Your task to perform on an android device: change the clock display to digital Image 0: 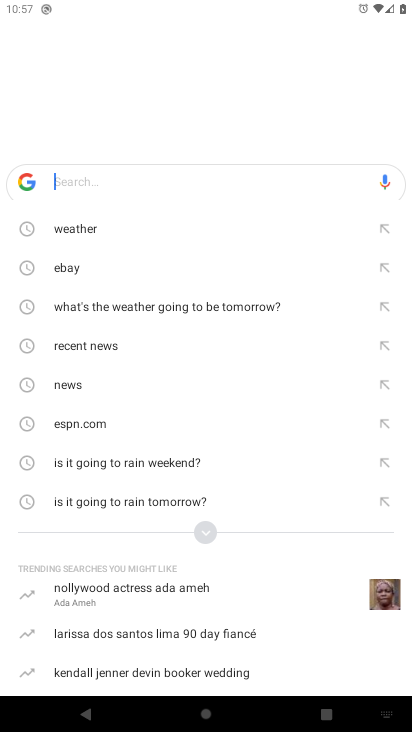
Step 0: press home button
Your task to perform on an android device: change the clock display to digital Image 1: 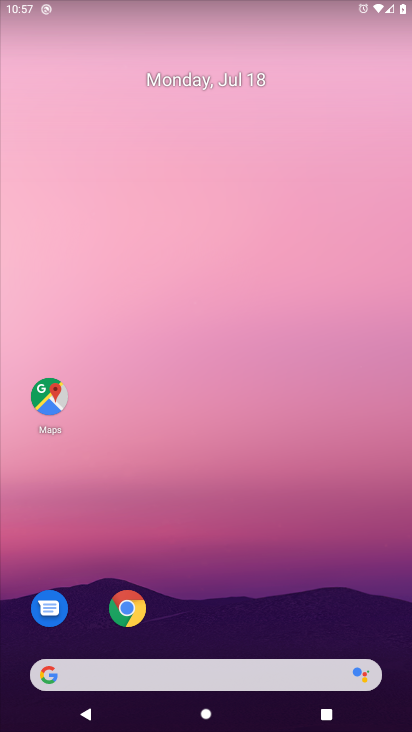
Step 1: drag from (32, 704) to (250, 234)
Your task to perform on an android device: change the clock display to digital Image 2: 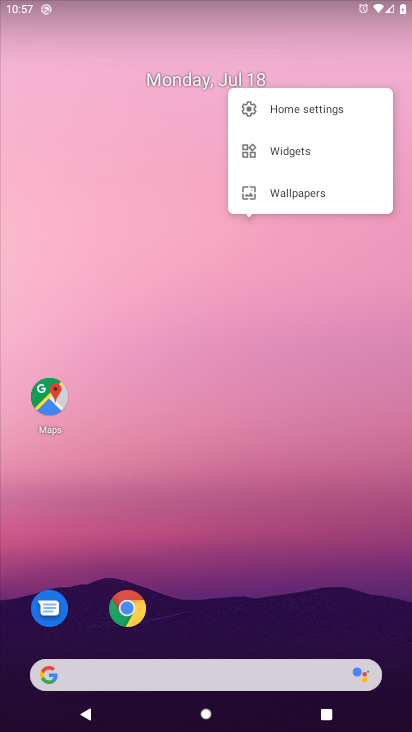
Step 2: drag from (30, 693) to (394, 141)
Your task to perform on an android device: change the clock display to digital Image 3: 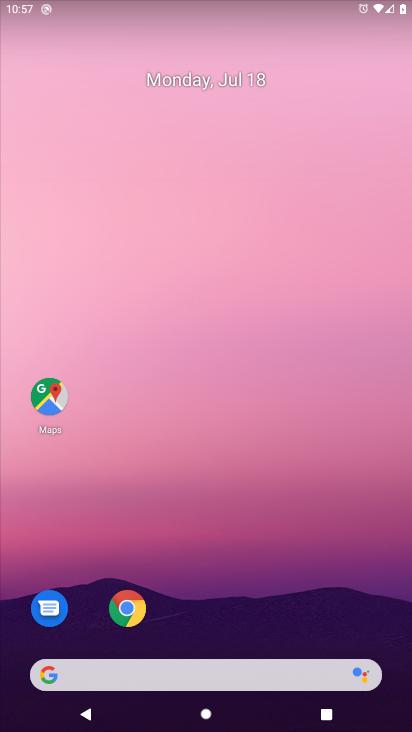
Step 3: drag from (28, 705) to (279, 128)
Your task to perform on an android device: change the clock display to digital Image 4: 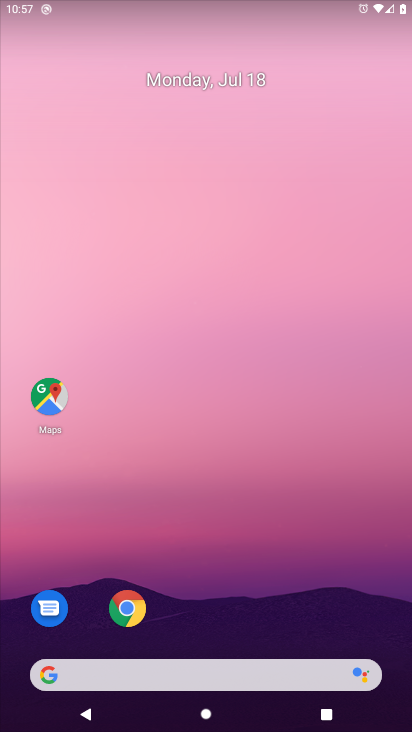
Step 4: drag from (46, 693) to (281, 148)
Your task to perform on an android device: change the clock display to digital Image 5: 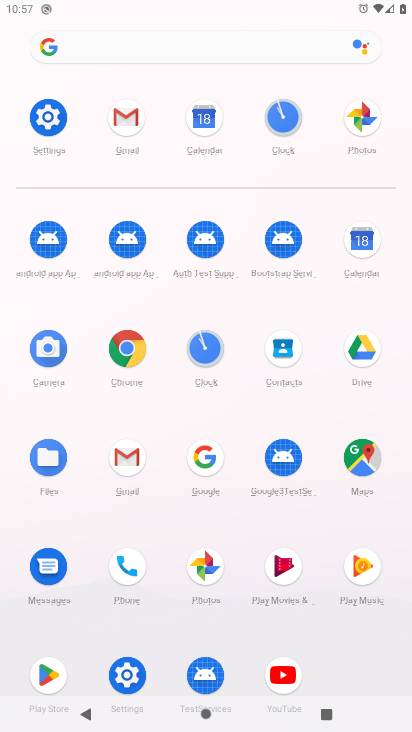
Step 5: click (241, 354)
Your task to perform on an android device: change the clock display to digital Image 6: 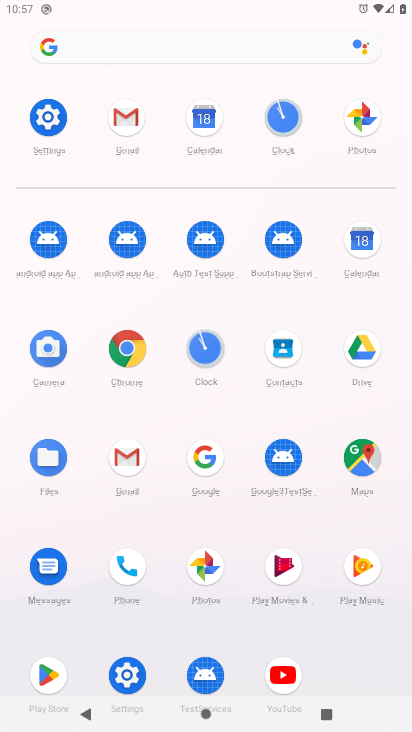
Step 6: click (172, 345)
Your task to perform on an android device: change the clock display to digital Image 7: 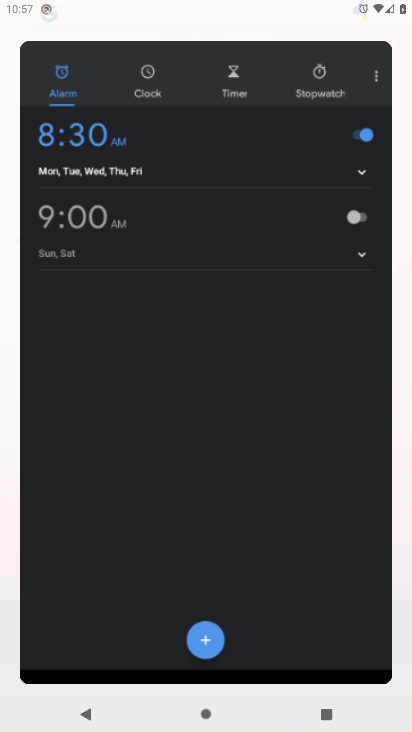
Step 7: click (193, 353)
Your task to perform on an android device: change the clock display to digital Image 8: 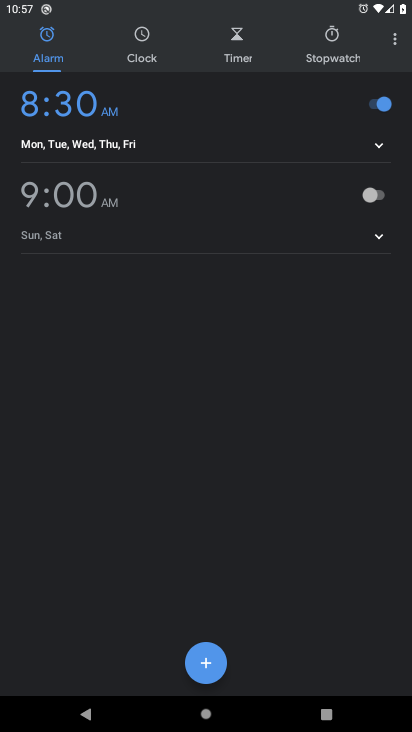
Step 8: click (392, 39)
Your task to perform on an android device: change the clock display to digital Image 9: 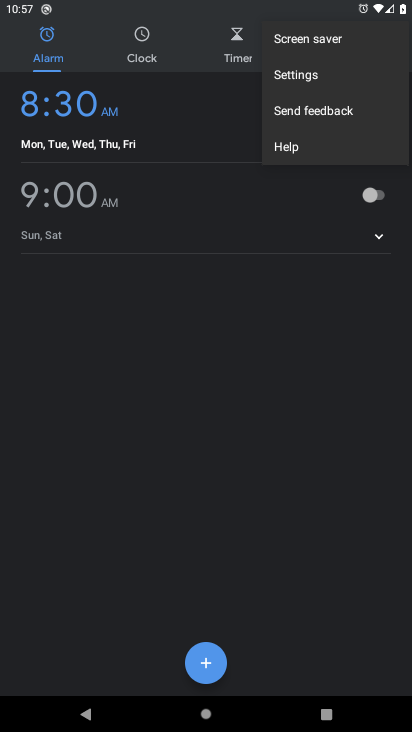
Step 9: click (306, 80)
Your task to perform on an android device: change the clock display to digital Image 10: 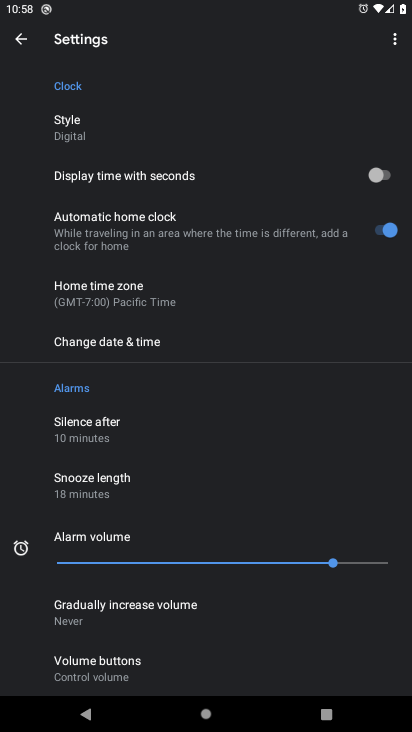
Step 10: task complete